Your task to perform on an android device: turn off javascript in the chrome app Image 0: 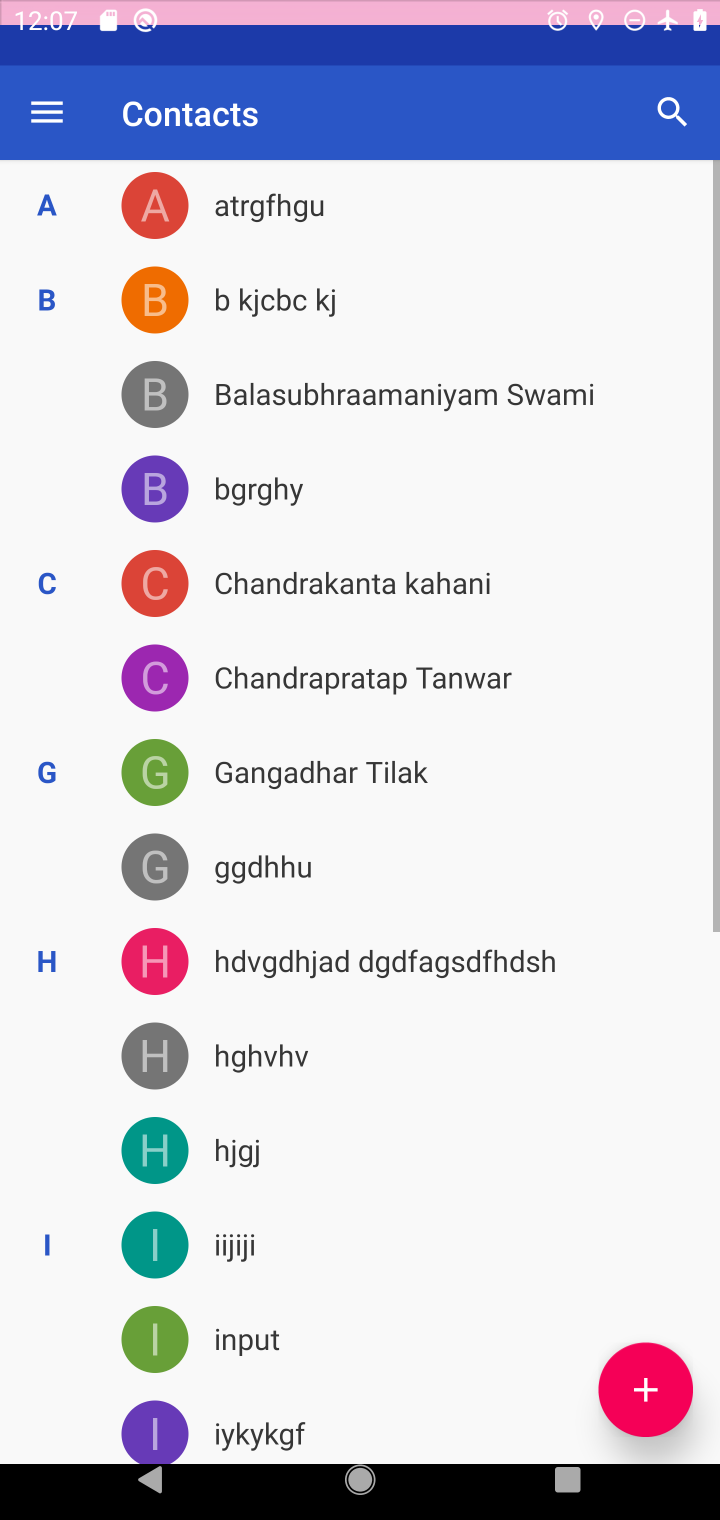
Step 0: press home button
Your task to perform on an android device: turn off javascript in the chrome app Image 1: 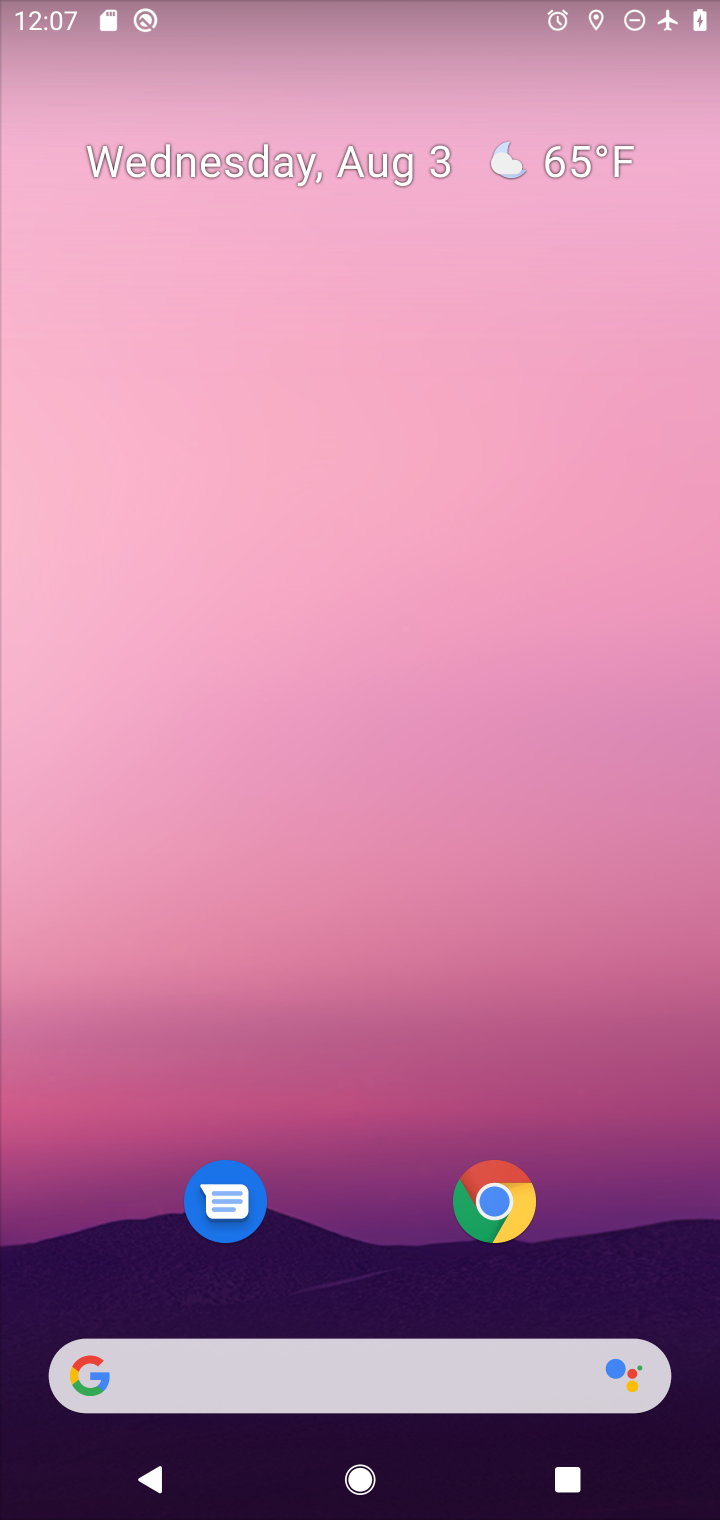
Step 1: click (504, 1190)
Your task to perform on an android device: turn off javascript in the chrome app Image 2: 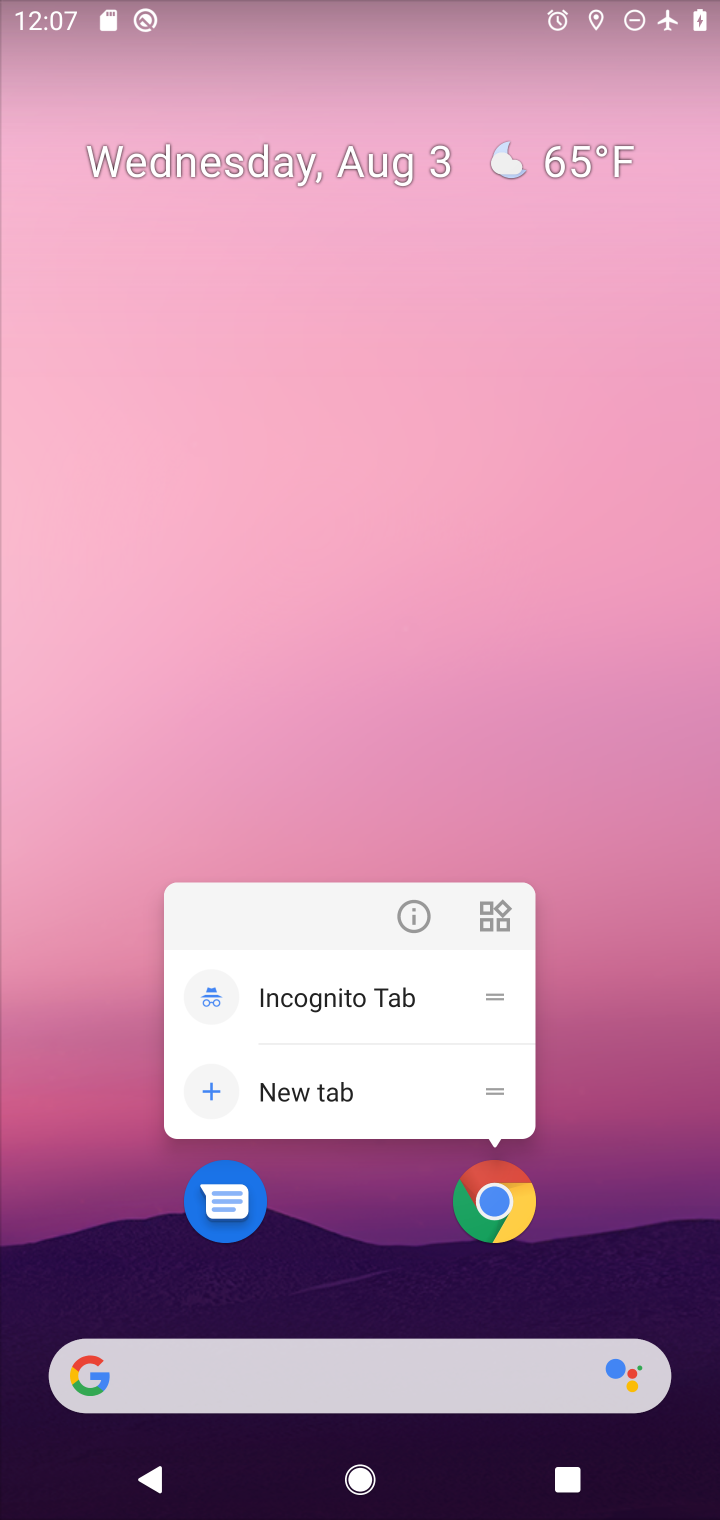
Step 2: click (380, 1280)
Your task to perform on an android device: turn off javascript in the chrome app Image 3: 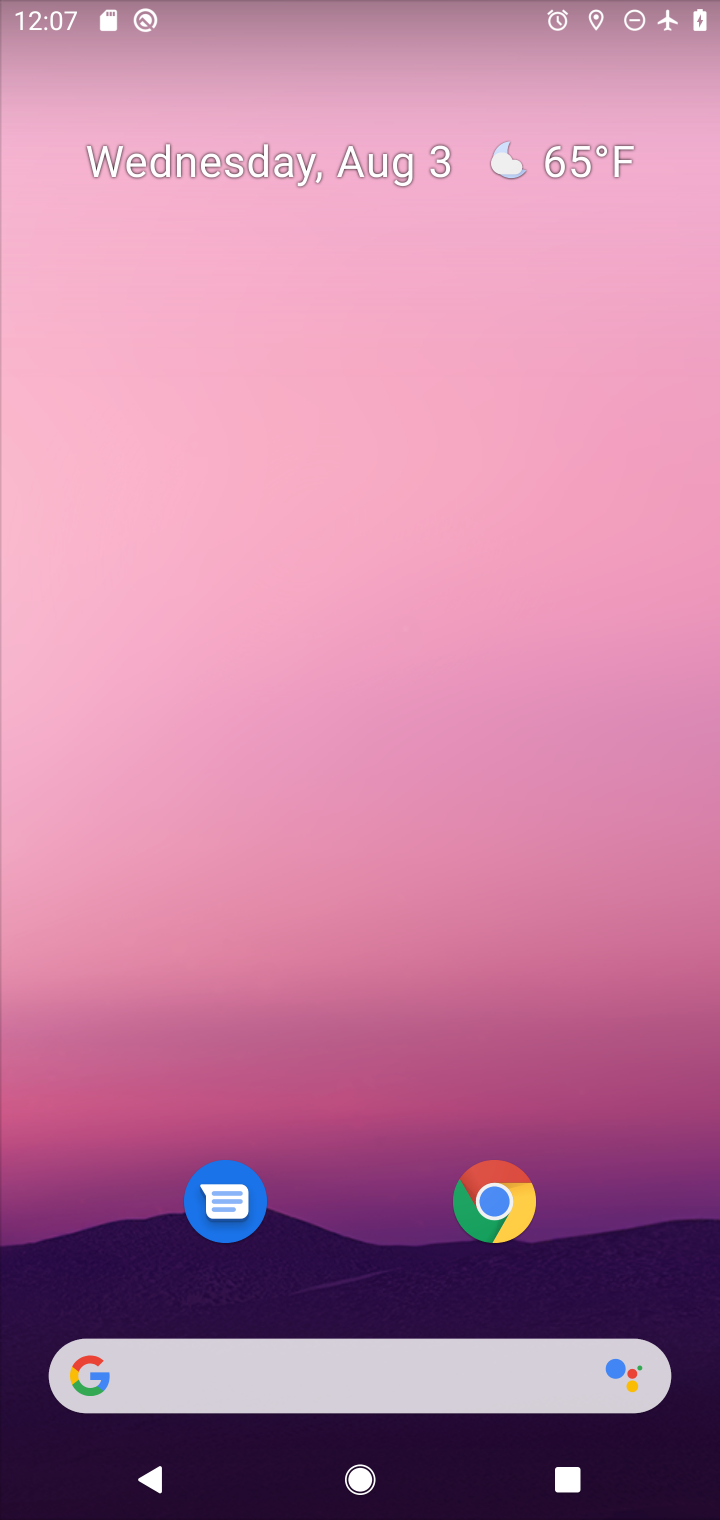
Step 3: click (475, 1225)
Your task to perform on an android device: turn off javascript in the chrome app Image 4: 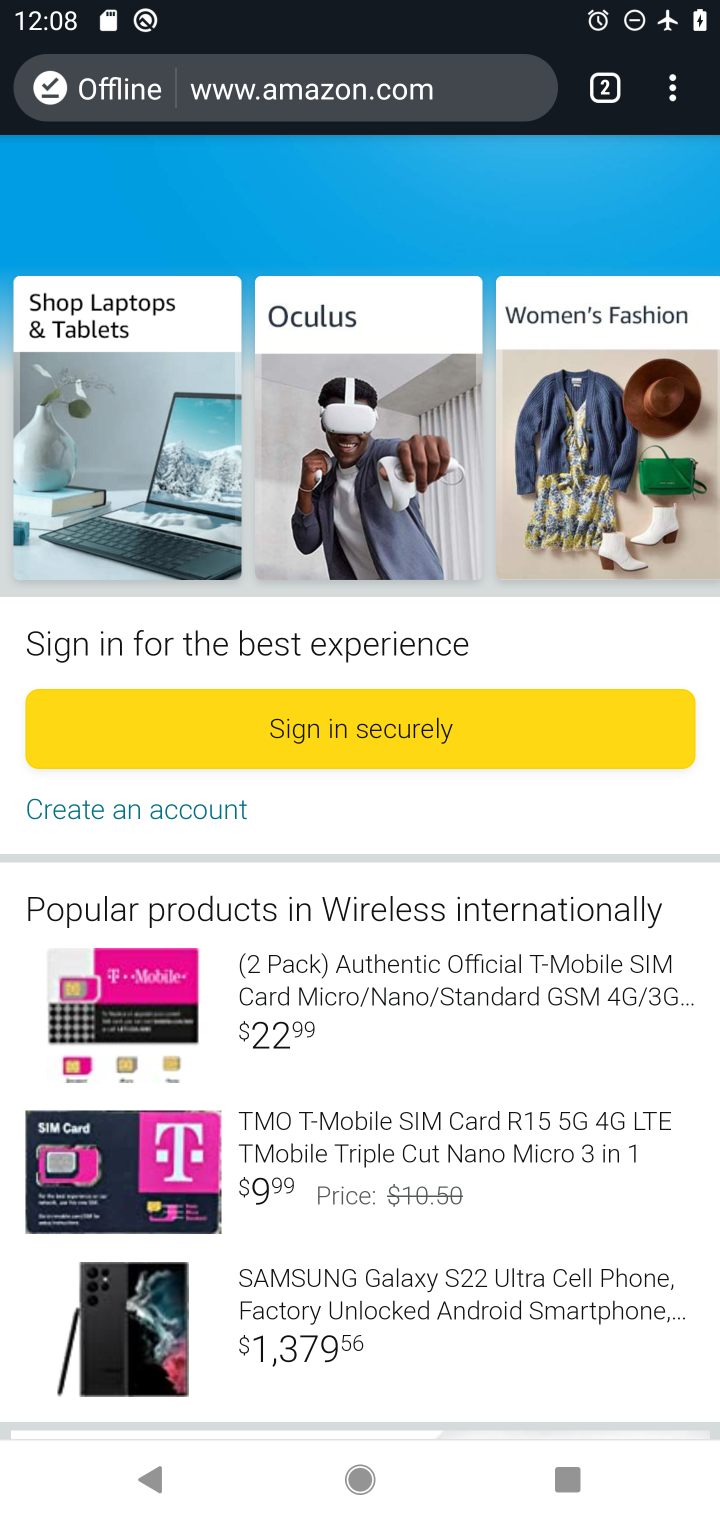
Step 4: click (665, 108)
Your task to perform on an android device: turn off javascript in the chrome app Image 5: 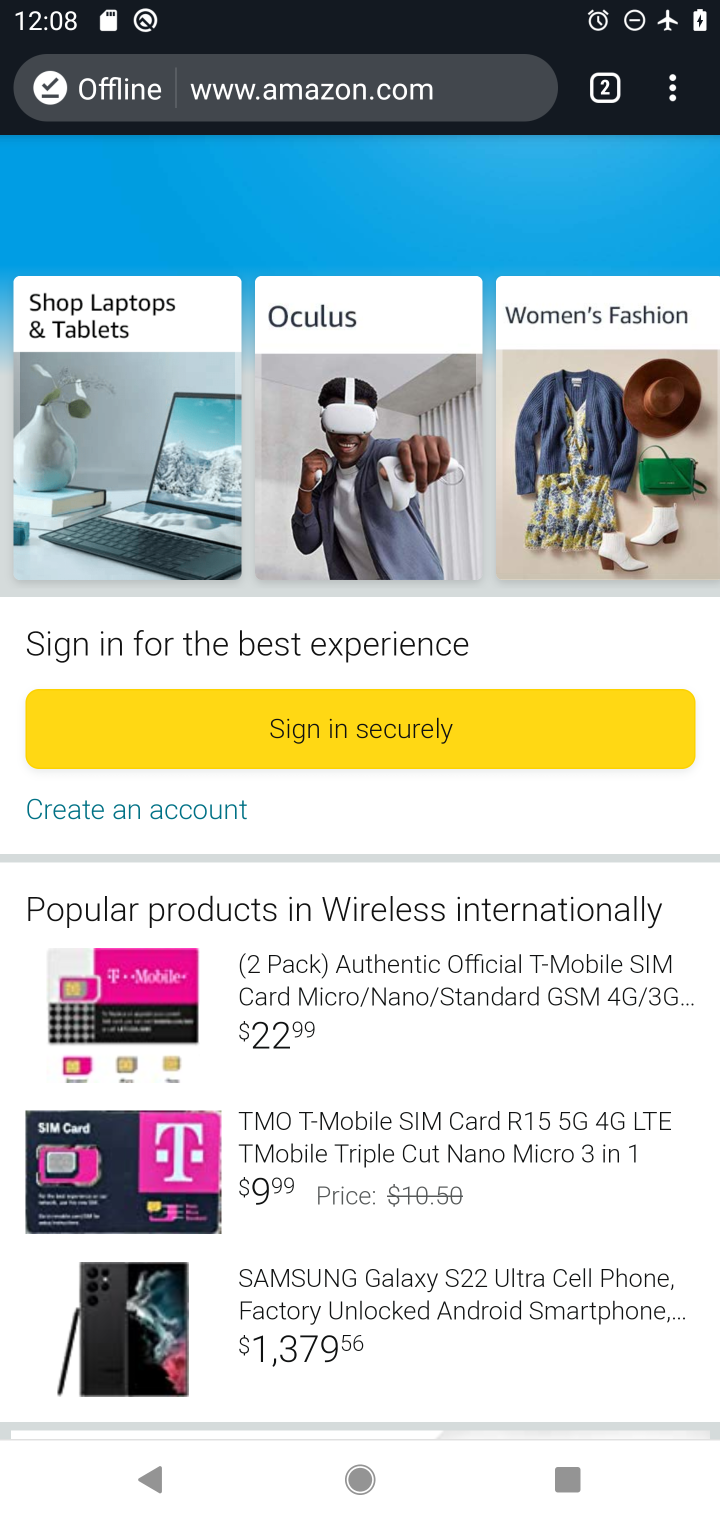
Step 5: click (674, 71)
Your task to perform on an android device: turn off javascript in the chrome app Image 6: 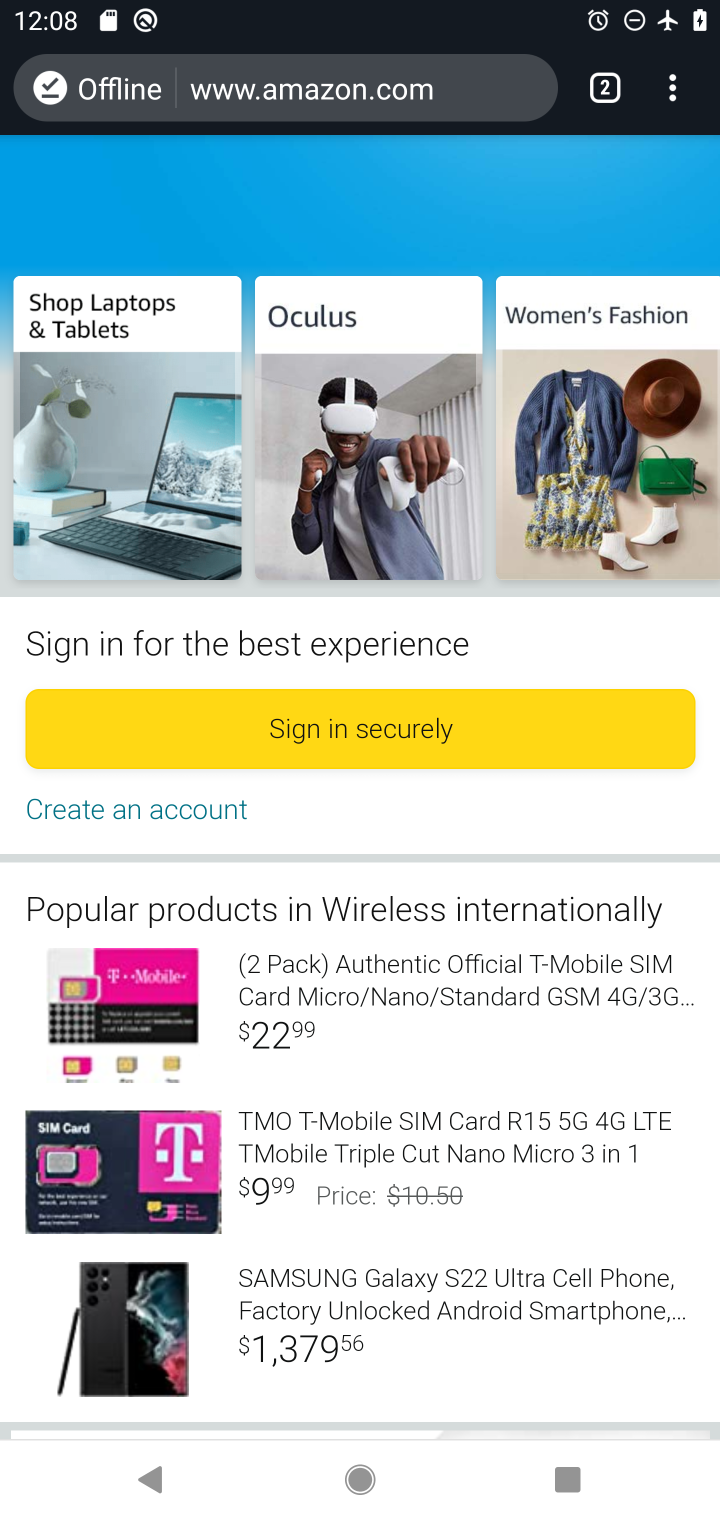
Step 6: click (684, 116)
Your task to perform on an android device: turn off javascript in the chrome app Image 7: 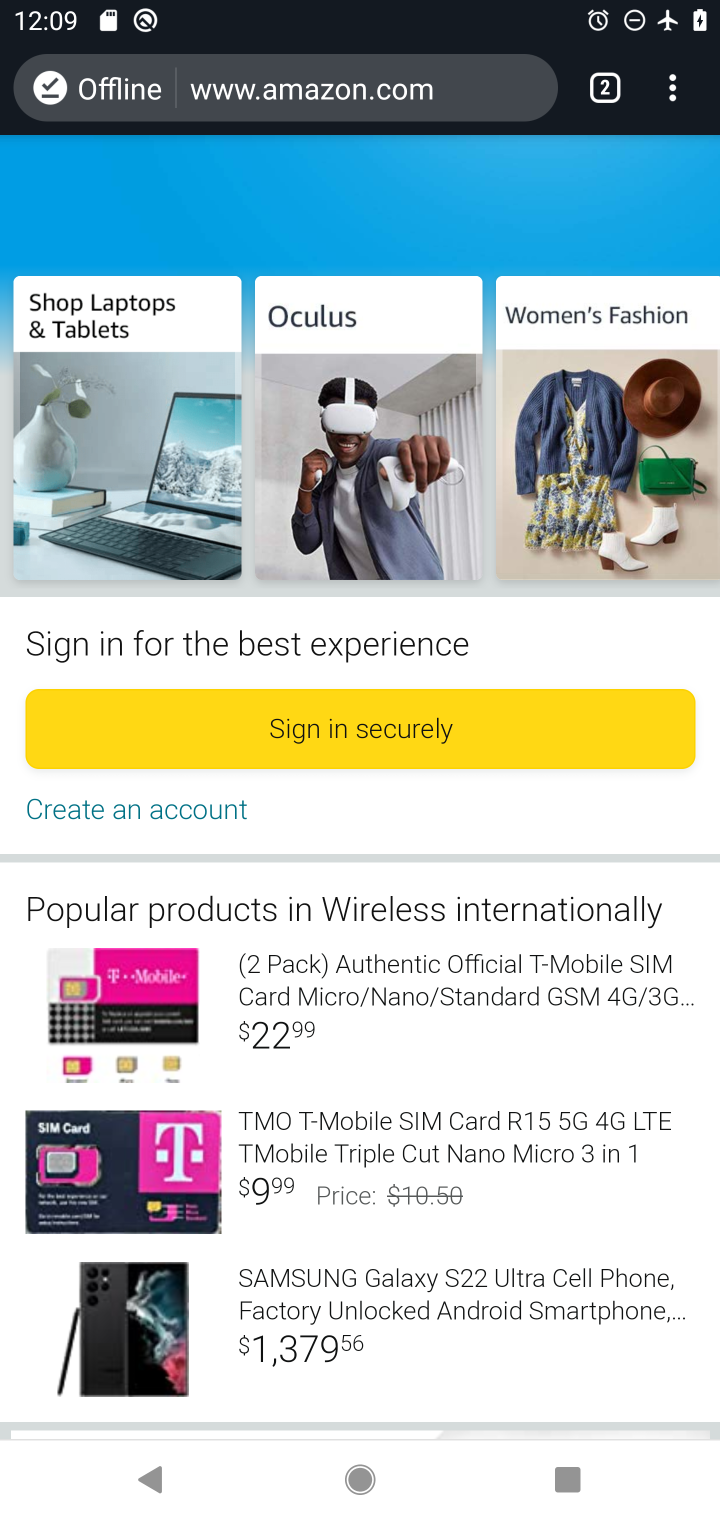
Step 7: click (677, 101)
Your task to perform on an android device: turn off javascript in the chrome app Image 8: 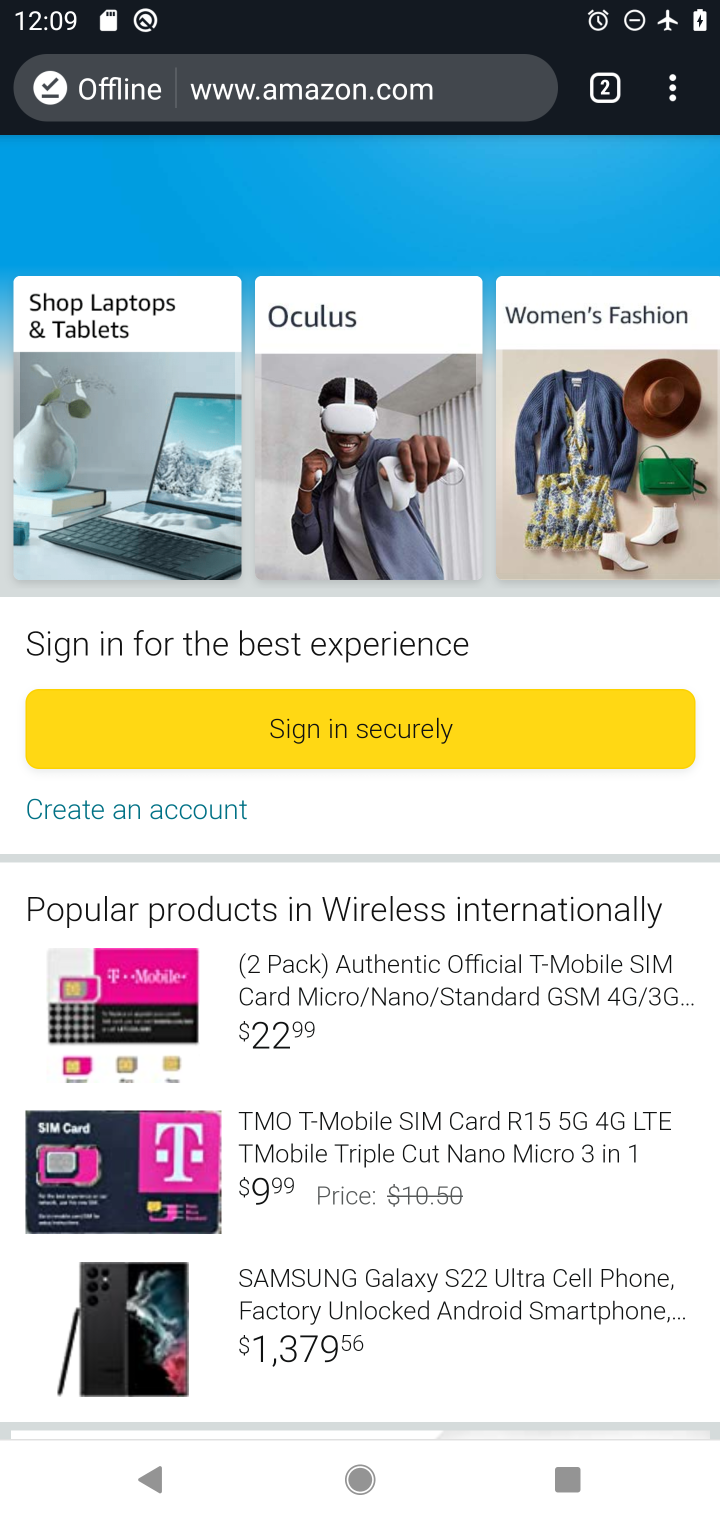
Step 8: drag from (679, 81) to (386, 976)
Your task to perform on an android device: turn off javascript in the chrome app Image 9: 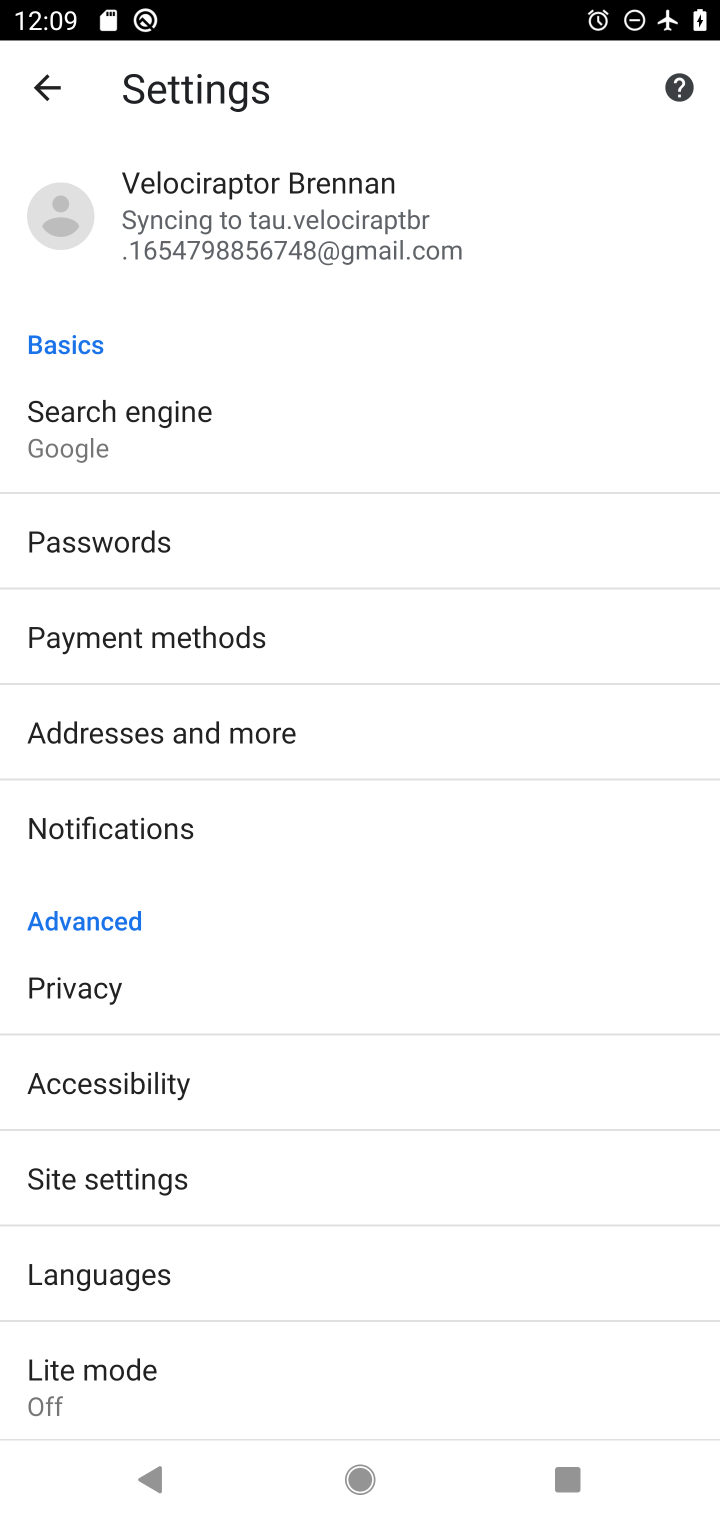
Step 9: click (189, 1198)
Your task to perform on an android device: turn off javascript in the chrome app Image 10: 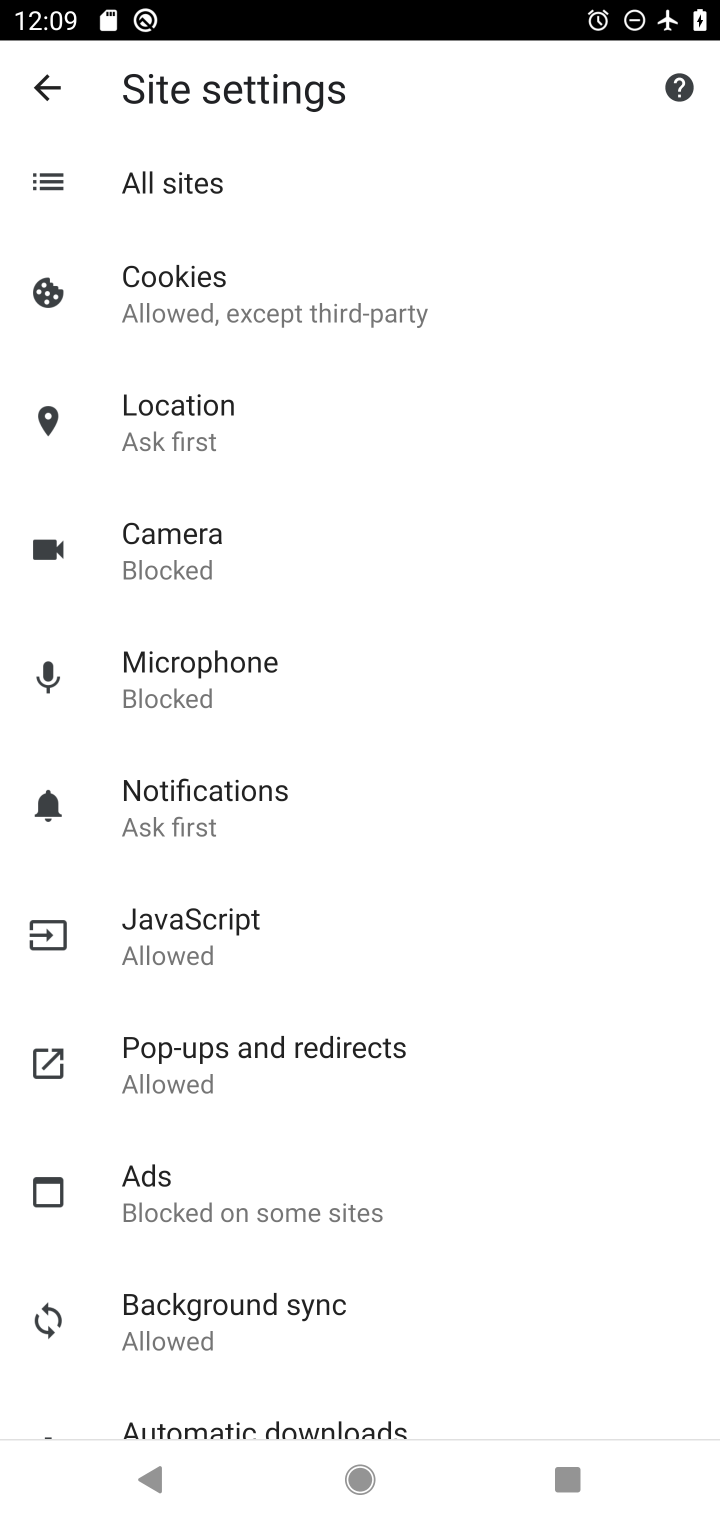
Step 10: click (222, 949)
Your task to perform on an android device: turn off javascript in the chrome app Image 11: 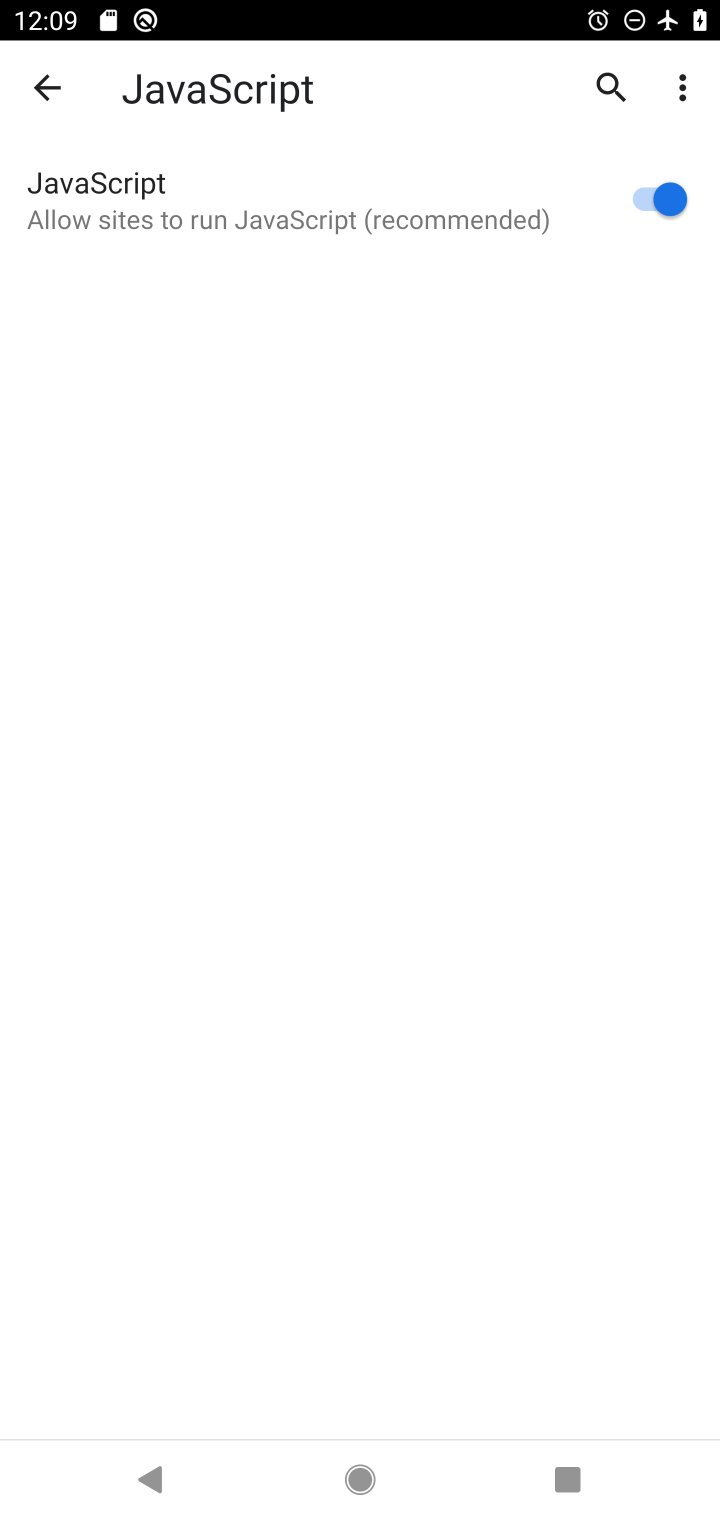
Step 11: click (664, 201)
Your task to perform on an android device: turn off javascript in the chrome app Image 12: 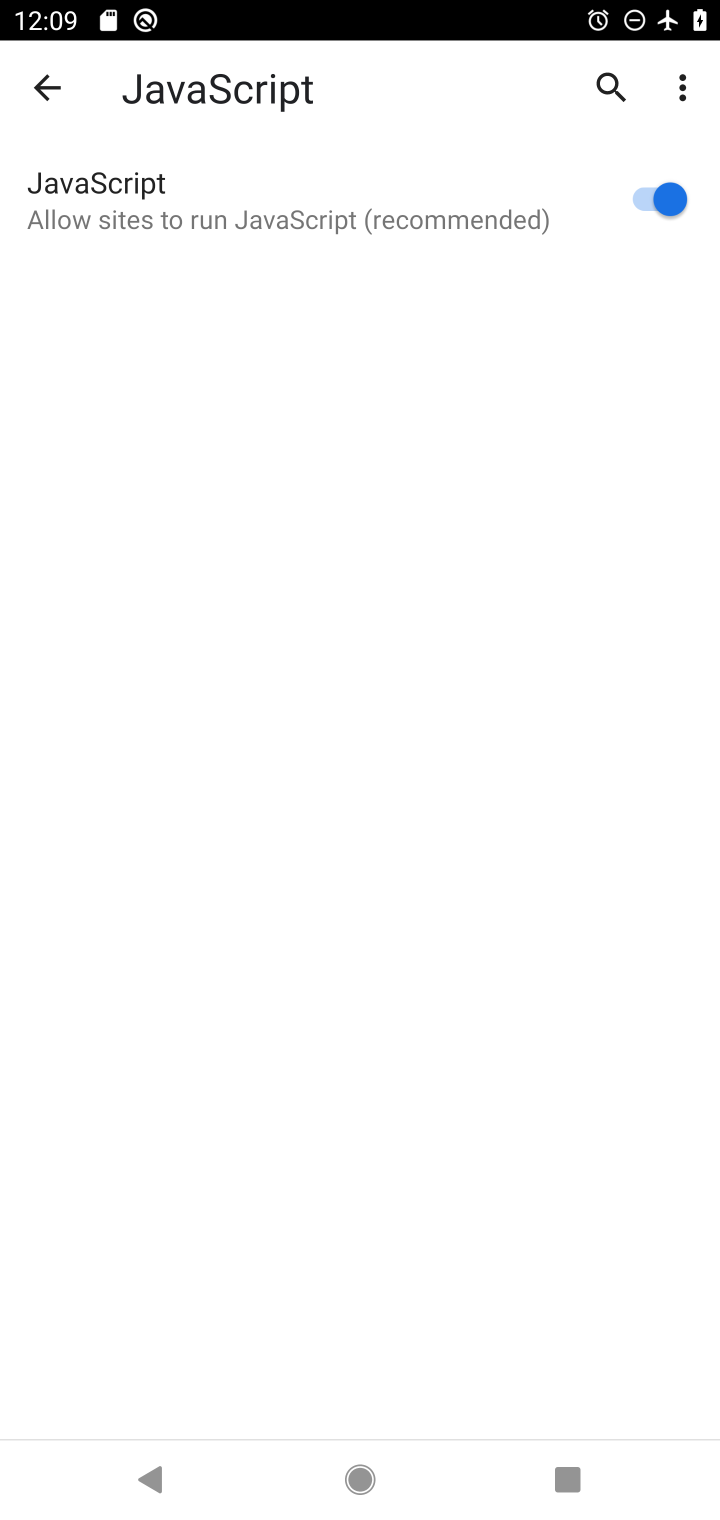
Step 12: task complete